Your task to perform on an android device: Open my contact list Image 0: 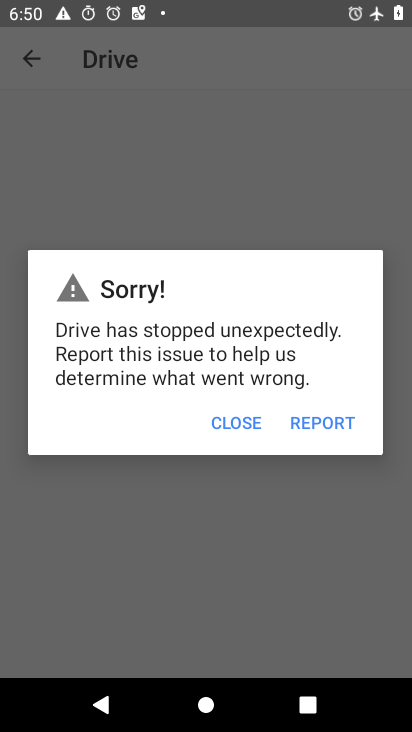
Step 0: press home button
Your task to perform on an android device: Open my contact list Image 1: 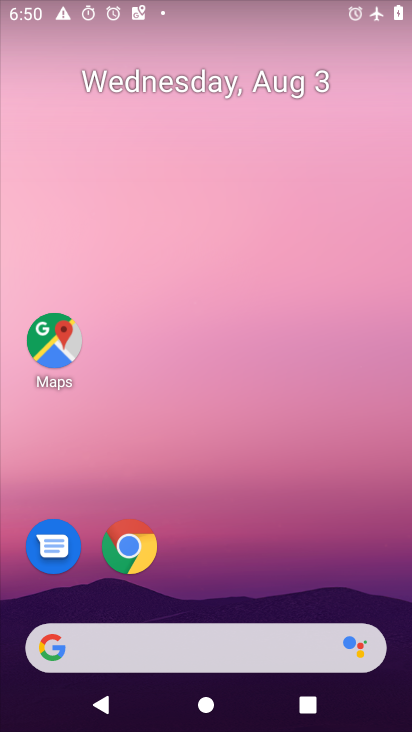
Step 1: drag from (213, 589) to (235, 101)
Your task to perform on an android device: Open my contact list Image 2: 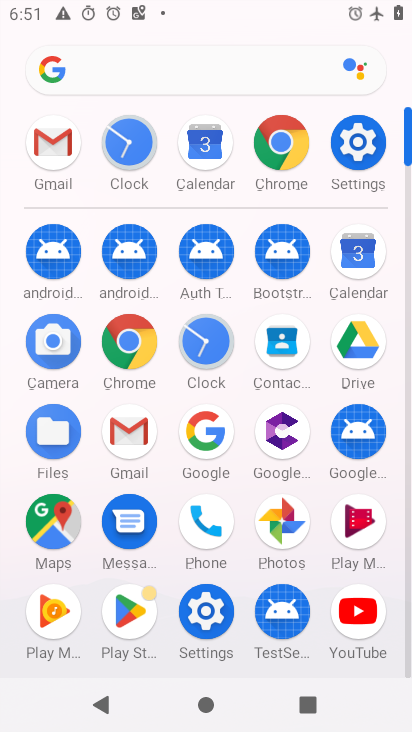
Step 2: click (275, 350)
Your task to perform on an android device: Open my contact list Image 3: 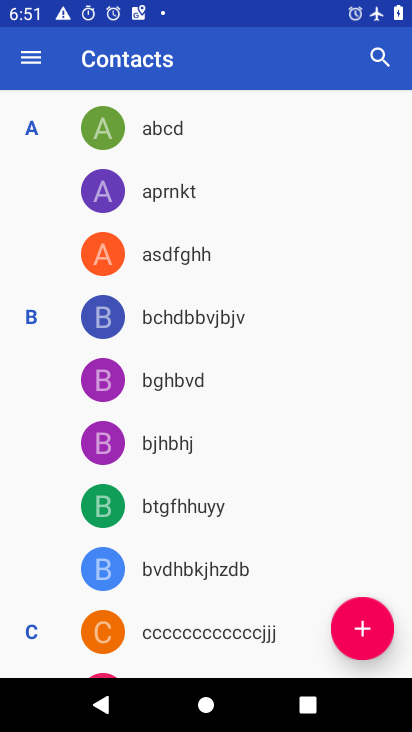
Step 3: task complete